Your task to perform on an android device: Go to accessibility settings Image 0: 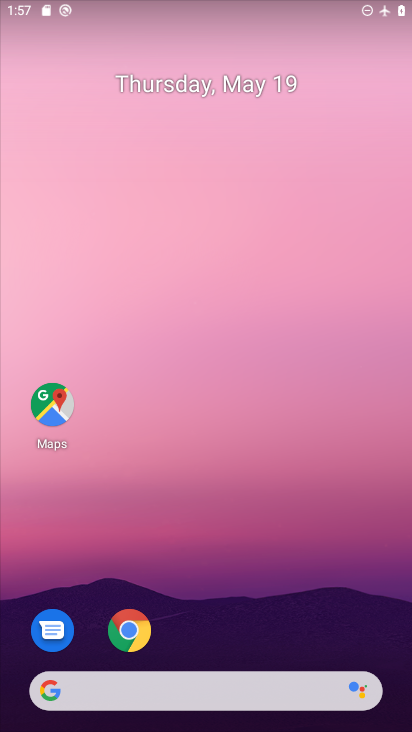
Step 0: drag from (212, 680) to (373, 16)
Your task to perform on an android device: Go to accessibility settings Image 1: 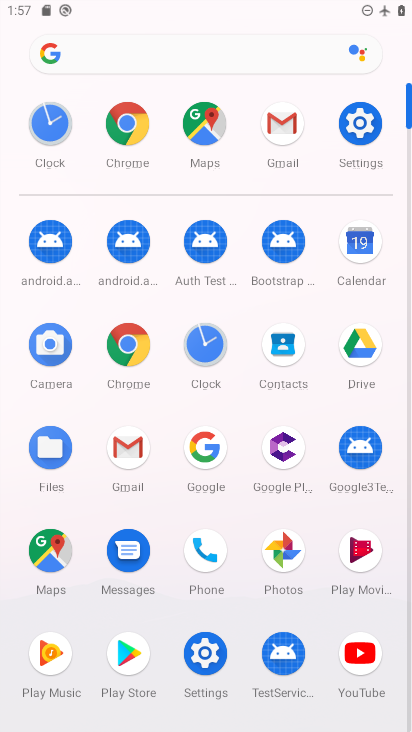
Step 1: click (349, 131)
Your task to perform on an android device: Go to accessibility settings Image 2: 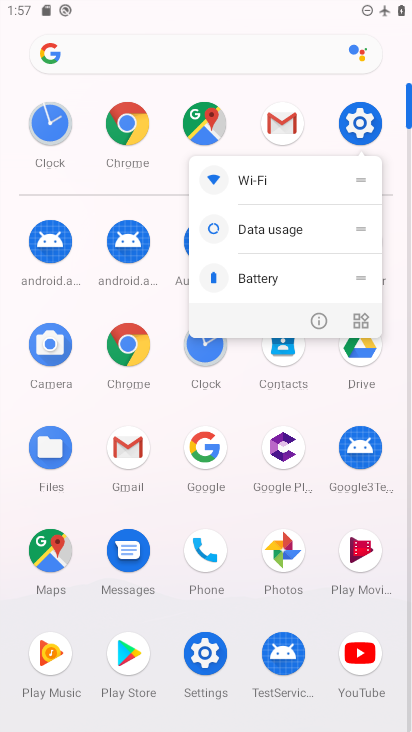
Step 2: click (364, 126)
Your task to perform on an android device: Go to accessibility settings Image 3: 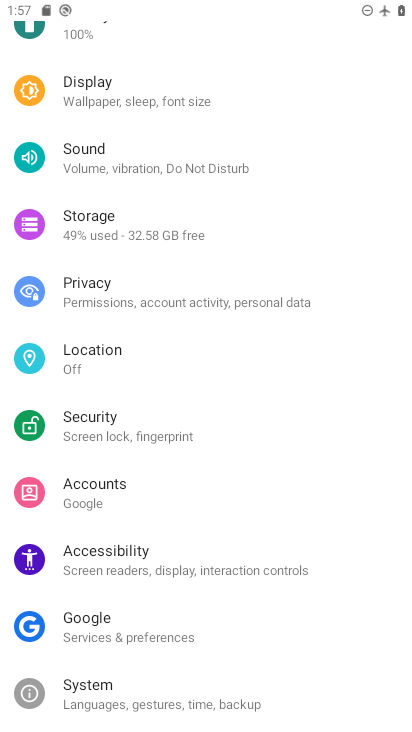
Step 3: click (122, 559)
Your task to perform on an android device: Go to accessibility settings Image 4: 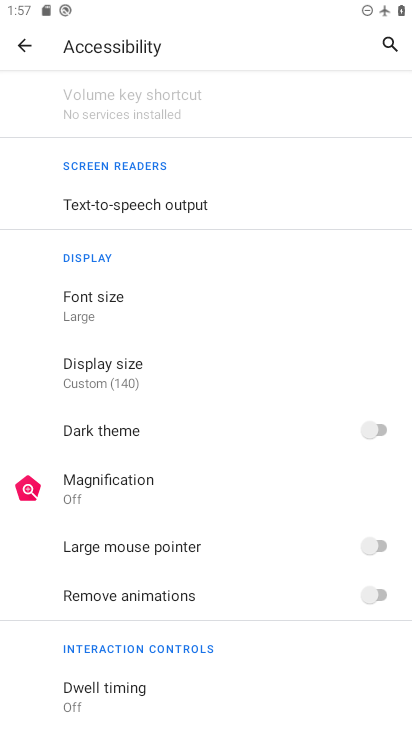
Step 4: task complete